Your task to perform on an android device: turn on location history Image 0: 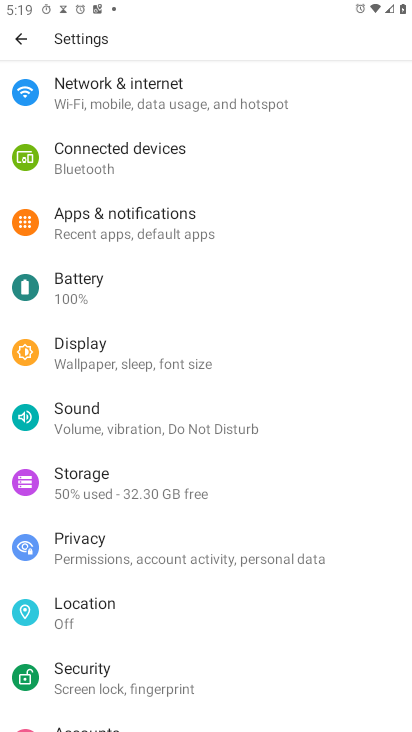
Step 0: press home button
Your task to perform on an android device: turn on location history Image 1: 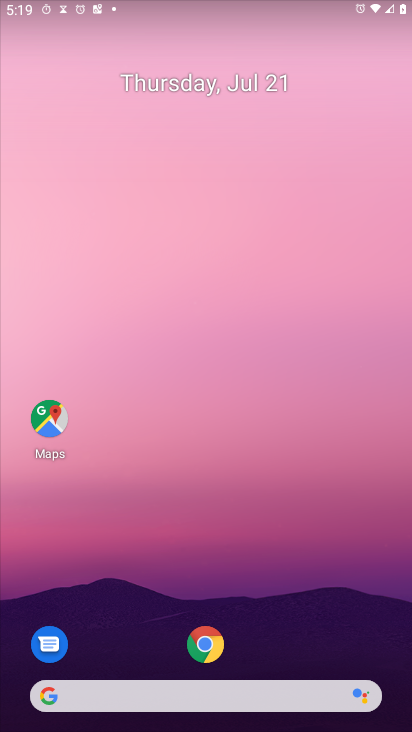
Step 1: drag from (334, 606) to (237, 101)
Your task to perform on an android device: turn on location history Image 2: 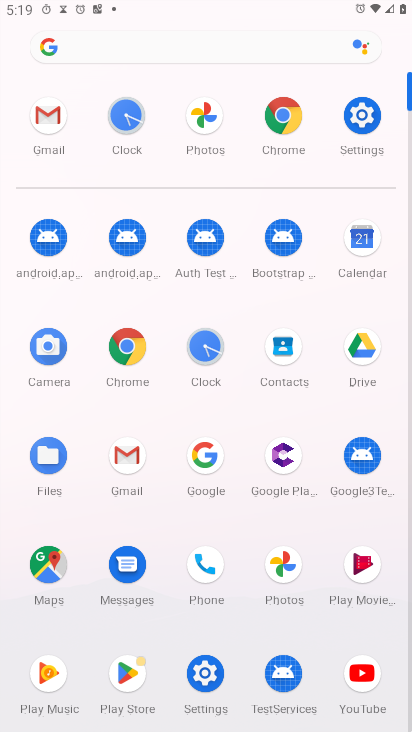
Step 2: click (356, 118)
Your task to perform on an android device: turn on location history Image 3: 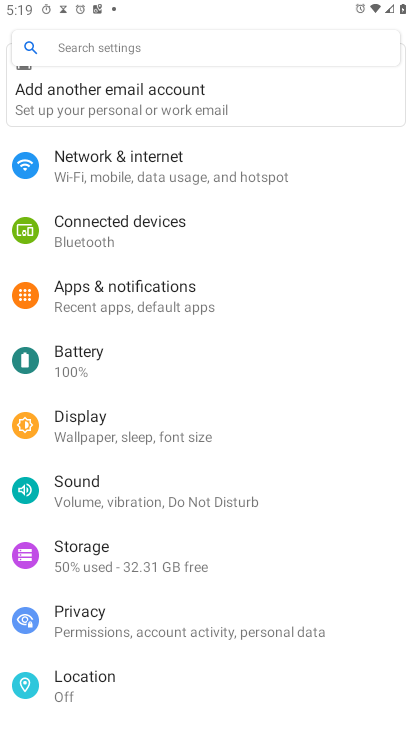
Step 3: click (107, 680)
Your task to perform on an android device: turn on location history Image 4: 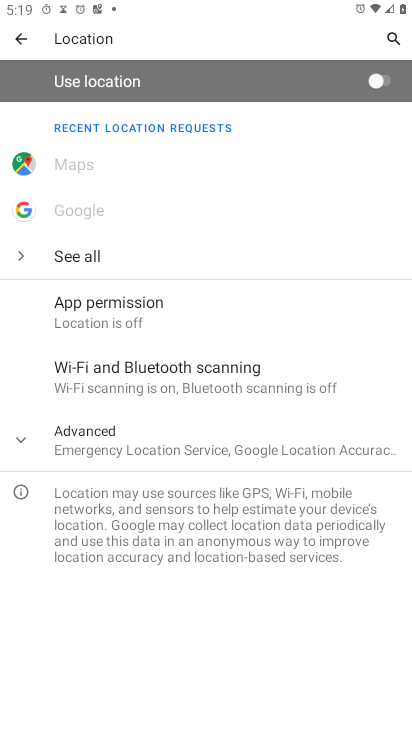
Step 4: click (20, 443)
Your task to perform on an android device: turn on location history Image 5: 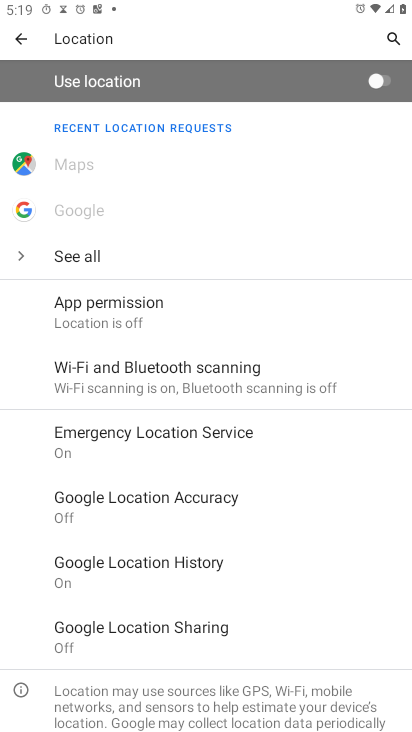
Step 5: task complete